Your task to perform on an android device: What's the weather going to be tomorrow? Image 0: 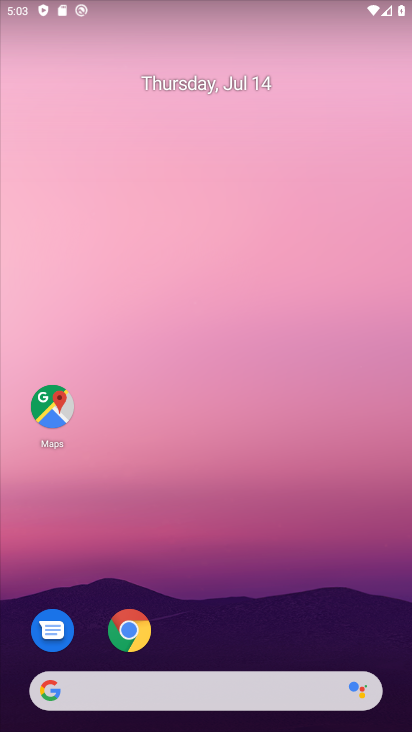
Step 0: click (51, 690)
Your task to perform on an android device: What's the weather going to be tomorrow? Image 1: 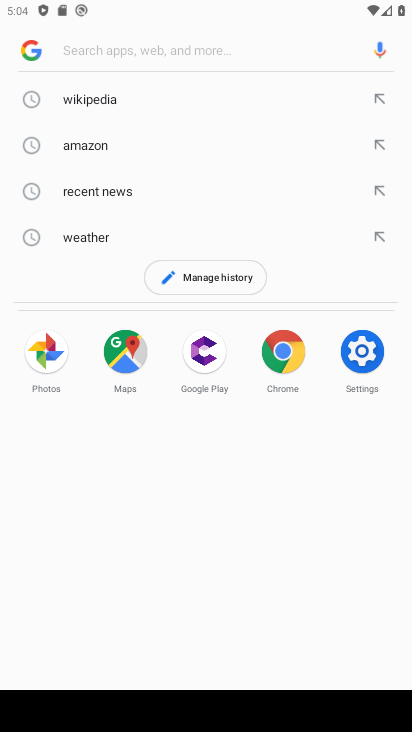
Step 1: type " weather going to be tomorrow?"
Your task to perform on an android device: What's the weather going to be tomorrow? Image 2: 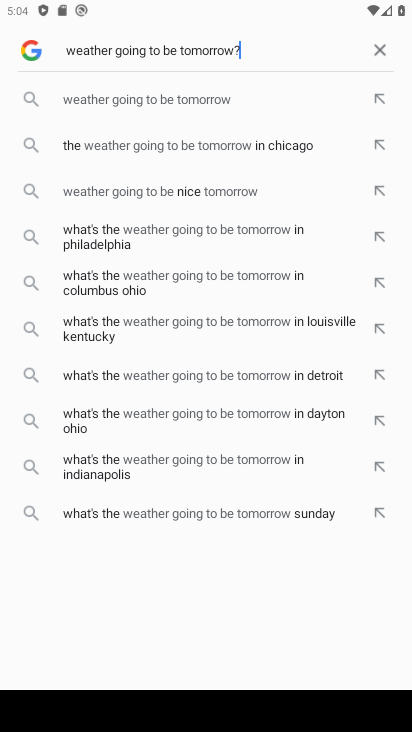
Step 2: press enter
Your task to perform on an android device: What's the weather going to be tomorrow? Image 3: 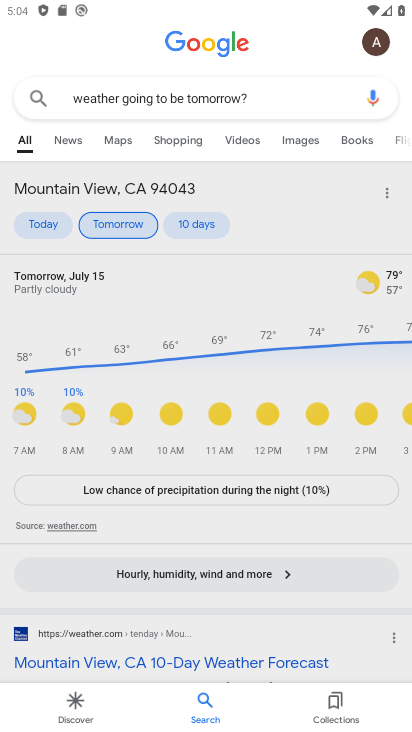
Step 3: task complete